Your task to perform on an android device: Open calendar and show me the fourth week of next month Image 0: 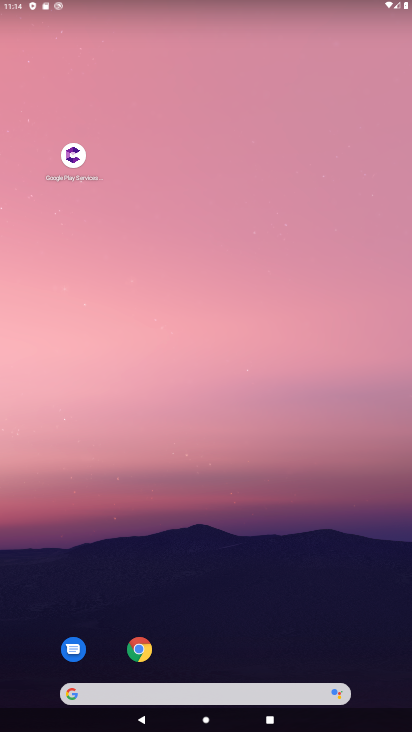
Step 0: drag from (168, 460) to (160, 192)
Your task to perform on an android device: Open calendar and show me the fourth week of next month Image 1: 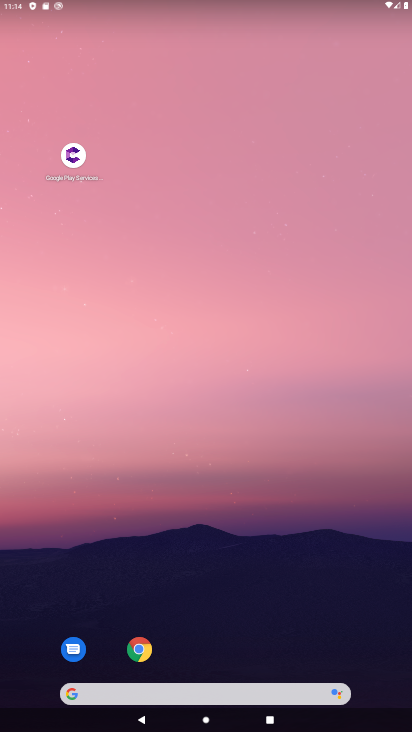
Step 1: drag from (248, 687) to (233, 115)
Your task to perform on an android device: Open calendar and show me the fourth week of next month Image 2: 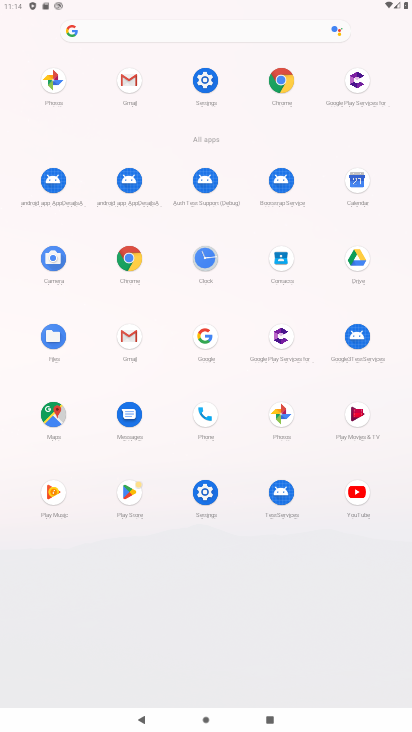
Step 2: click (358, 185)
Your task to perform on an android device: Open calendar and show me the fourth week of next month Image 3: 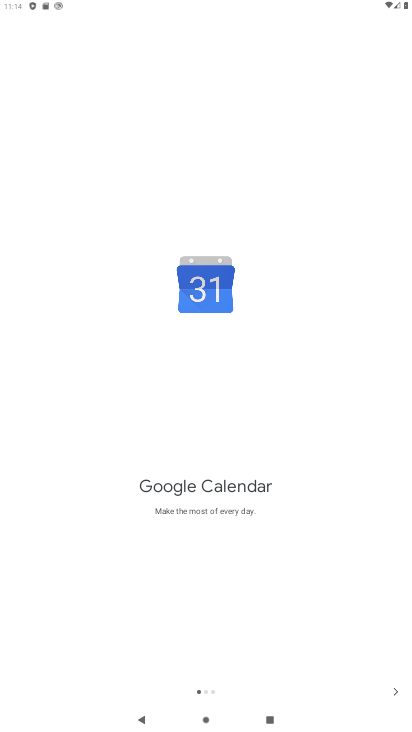
Step 3: click (398, 687)
Your task to perform on an android device: Open calendar and show me the fourth week of next month Image 4: 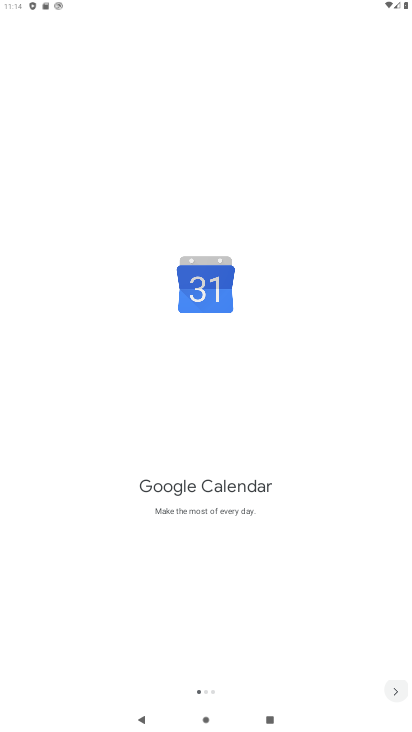
Step 4: click (398, 687)
Your task to perform on an android device: Open calendar and show me the fourth week of next month Image 5: 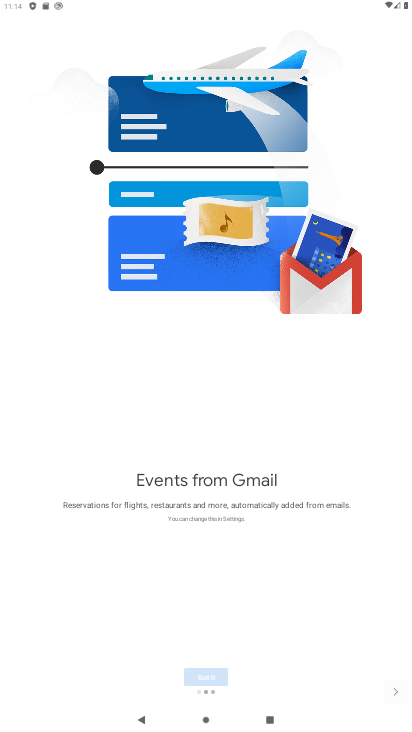
Step 5: click (398, 687)
Your task to perform on an android device: Open calendar and show me the fourth week of next month Image 6: 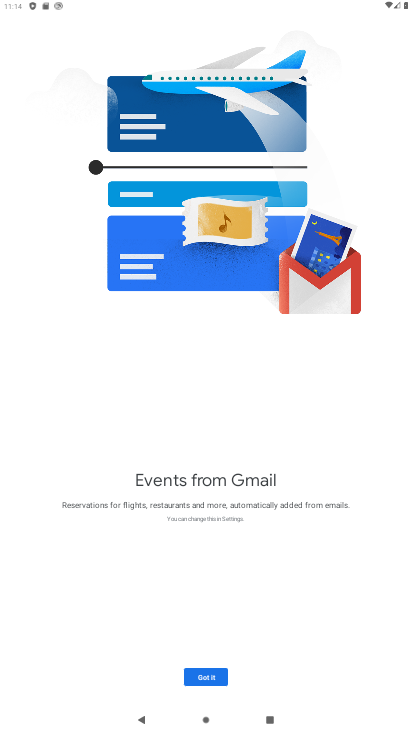
Step 6: click (229, 675)
Your task to perform on an android device: Open calendar and show me the fourth week of next month Image 7: 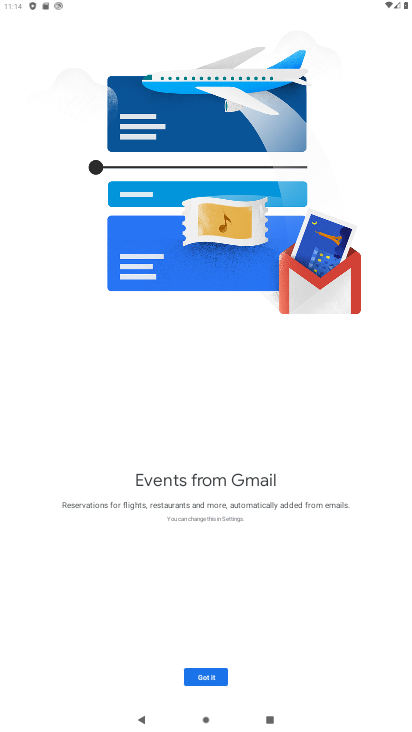
Step 7: click (196, 674)
Your task to perform on an android device: Open calendar and show me the fourth week of next month Image 8: 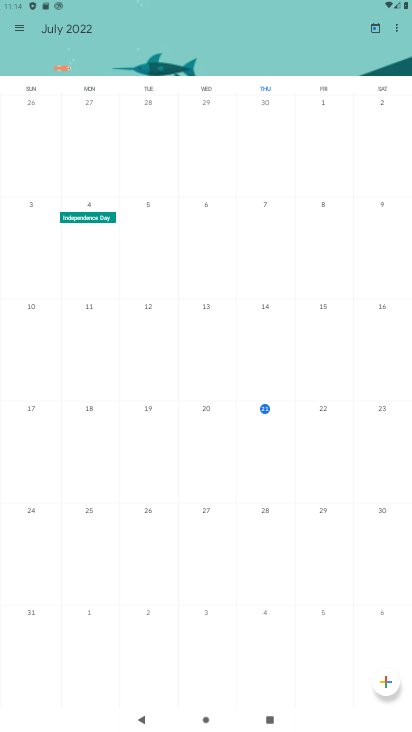
Step 8: drag from (314, 322) to (45, 347)
Your task to perform on an android device: Open calendar and show me the fourth week of next month Image 9: 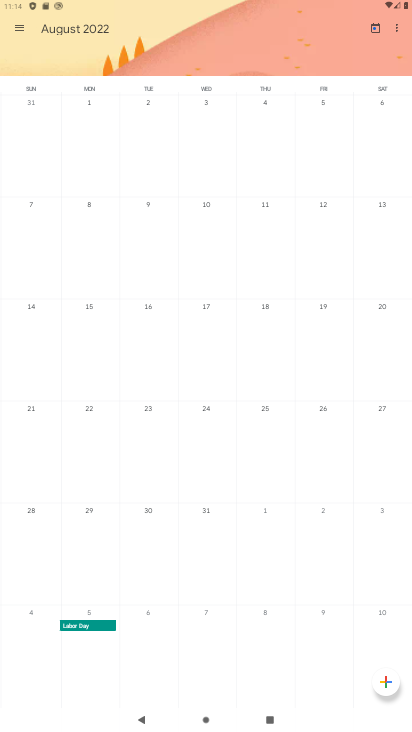
Step 9: click (205, 409)
Your task to perform on an android device: Open calendar and show me the fourth week of next month Image 10: 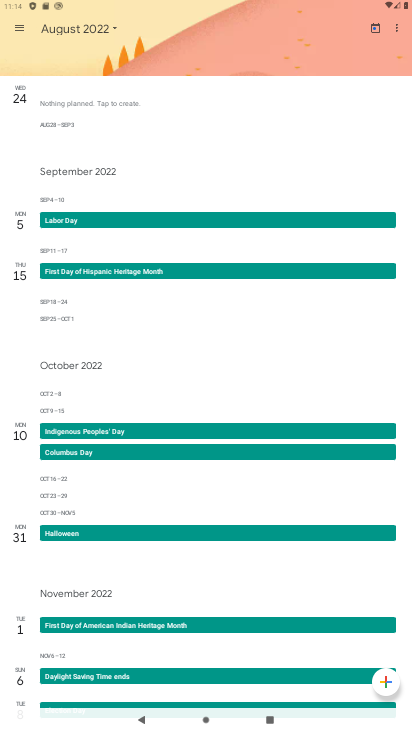
Step 10: click (110, 29)
Your task to perform on an android device: Open calendar and show me the fourth week of next month Image 11: 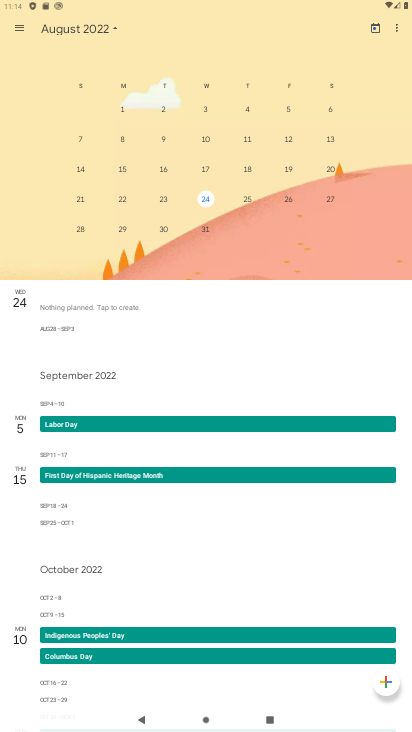
Step 11: click (21, 24)
Your task to perform on an android device: Open calendar and show me the fourth week of next month Image 12: 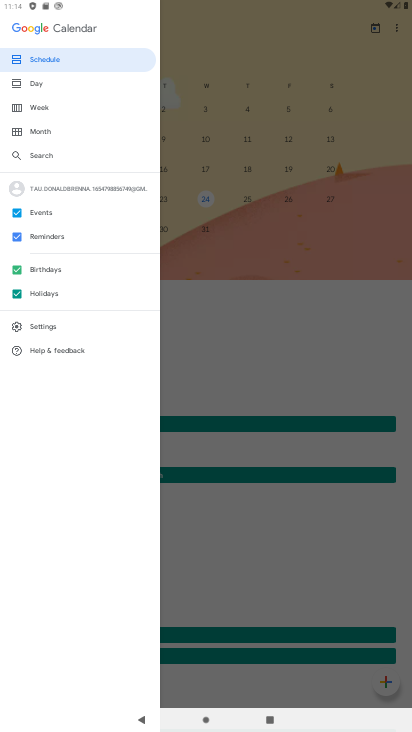
Step 12: click (42, 107)
Your task to perform on an android device: Open calendar and show me the fourth week of next month Image 13: 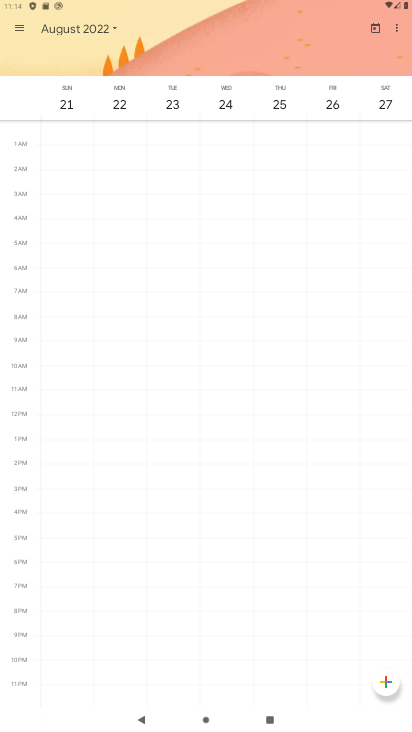
Step 13: task complete